Your task to perform on an android device: delete the emails in spam in the gmail app Image 0: 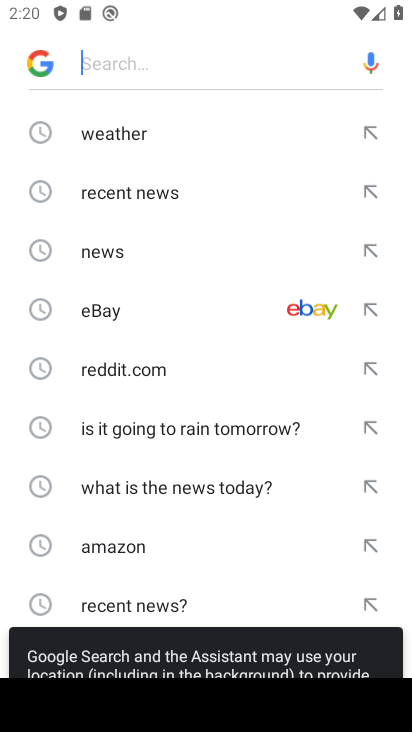
Step 0: press home button
Your task to perform on an android device: delete the emails in spam in the gmail app Image 1: 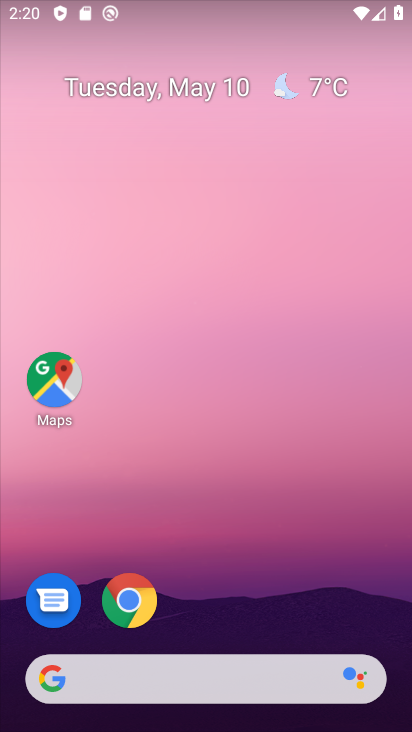
Step 1: drag from (193, 666) to (195, 190)
Your task to perform on an android device: delete the emails in spam in the gmail app Image 2: 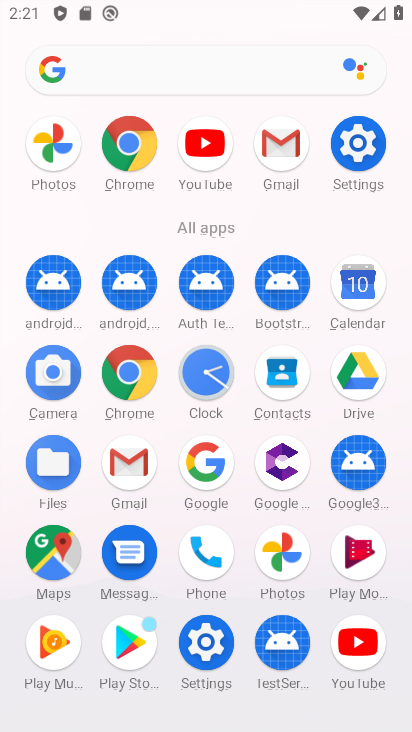
Step 2: click (287, 147)
Your task to perform on an android device: delete the emails in spam in the gmail app Image 3: 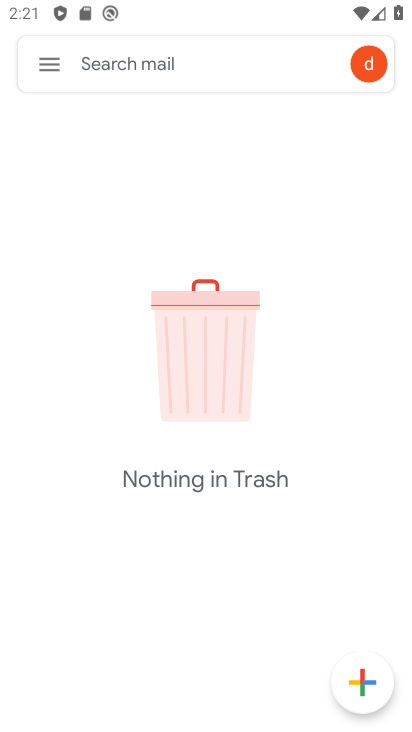
Step 3: click (55, 64)
Your task to perform on an android device: delete the emails in spam in the gmail app Image 4: 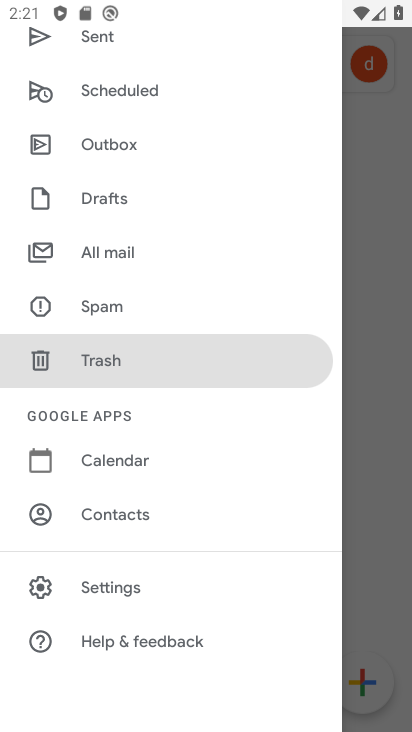
Step 4: click (107, 298)
Your task to perform on an android device: delete the emails in spam in the gmail app Image 5: 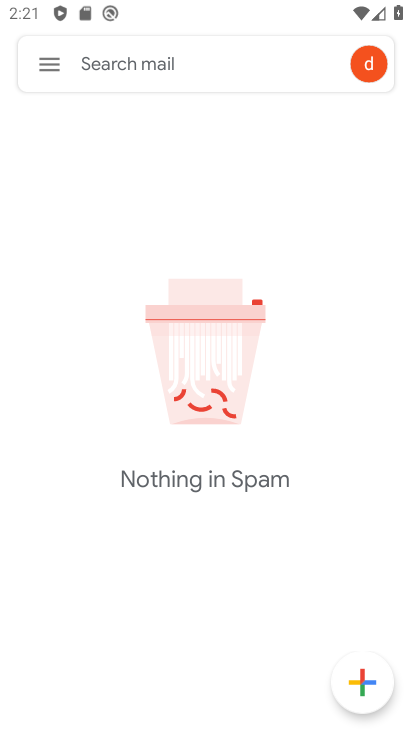
Step 5: task complete